Your task to perform on an android device: choose inbox layout in the gmail app Image 0: 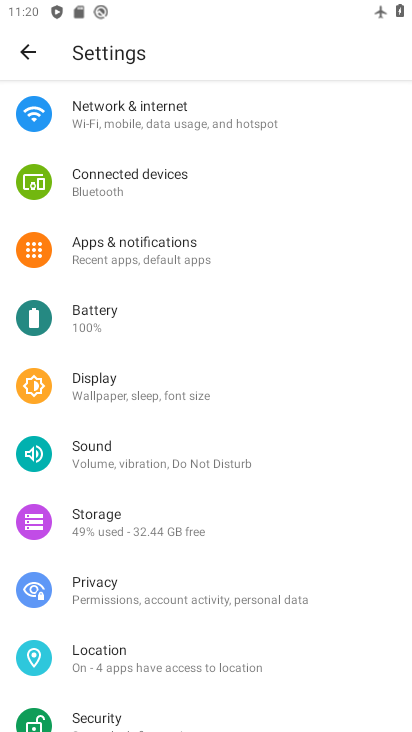
Step 0: press home button
Your task to perform on an android device: choose inbox layout in the gmail app Image 1: 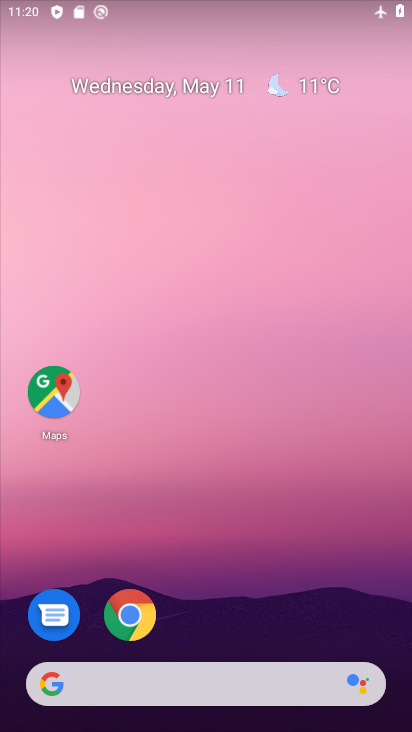
Step 1: drag from (301, 593) to (337, 105)
Your task to perform on an android device: choose inbox layout in the gmail app Image 2: 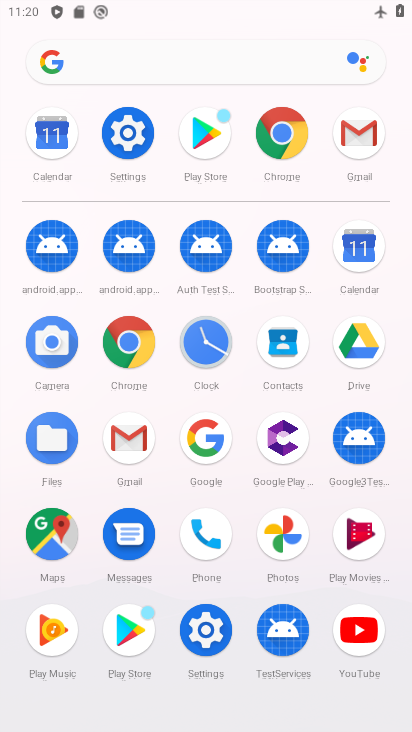
Step 2: click (363, 136)
Your task to perform on an android device: choose inbox layout in the gmail app Image 3: 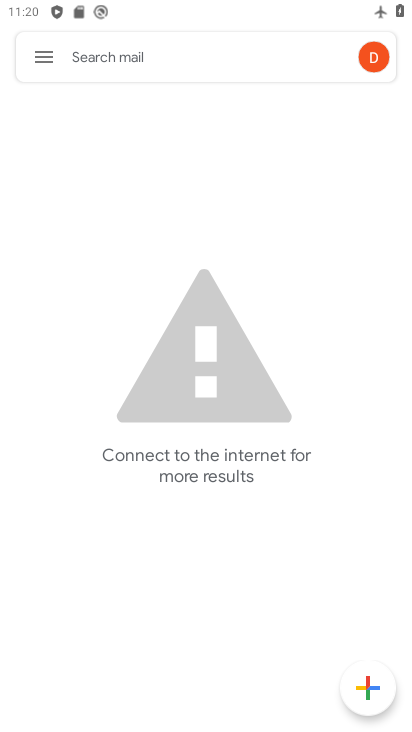
Step 3: click (44, 47)
Your task to perform on an android device: choose inbox layout in the gmail app Image 4: 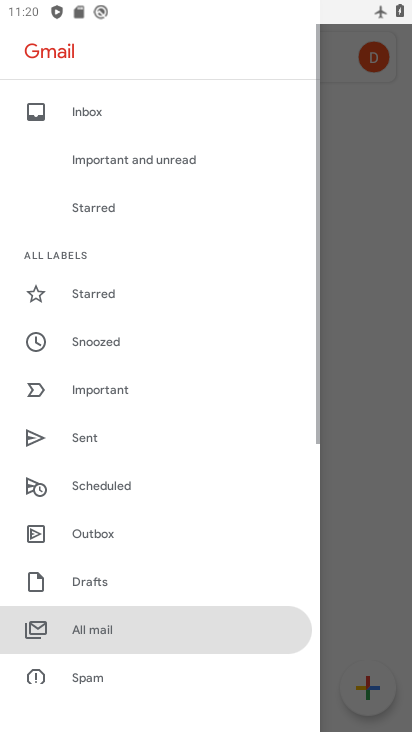
Step 4: drag from (120, 618) to (228, 183)
Your task to perform on an android device: choose inbox layout in the gmail app Image 5: 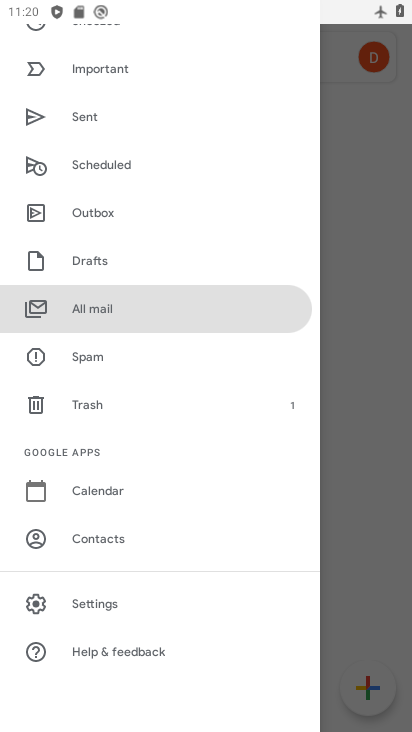
Step 5: click (100, 619)
Your task to perform on an android device: choose inbox layout in the gmail app Image 6: 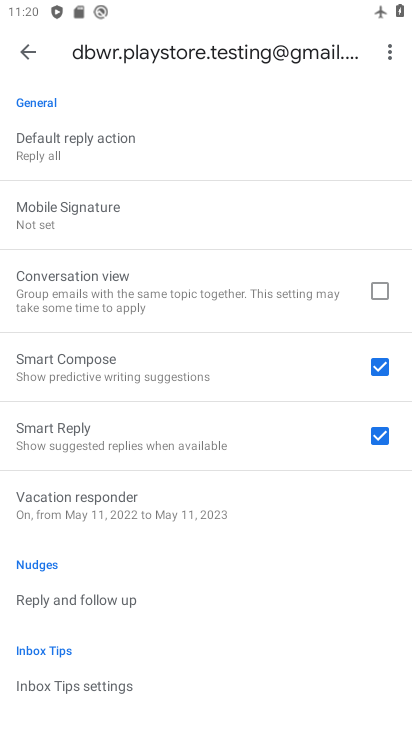
Step 6: drag from (209, 190) to (300, 538)
Your task to perform on an android device: choose inbox layout in the gmail app Image 7: 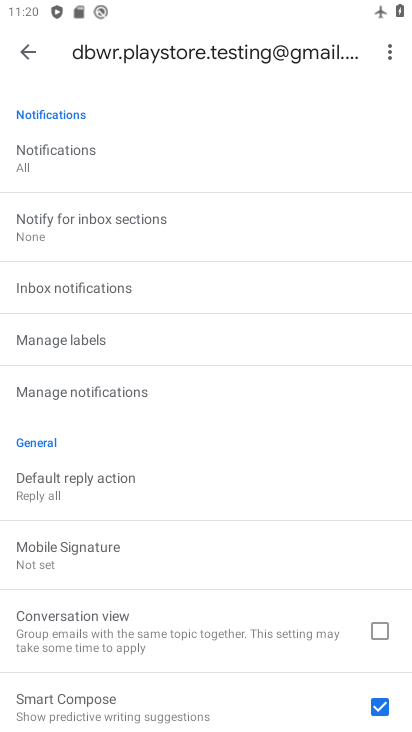
Step 7: drag from (207, 192) to (140, 469)
Your task to perform on an android device: choose inbox layout in the gmail app Image 8: 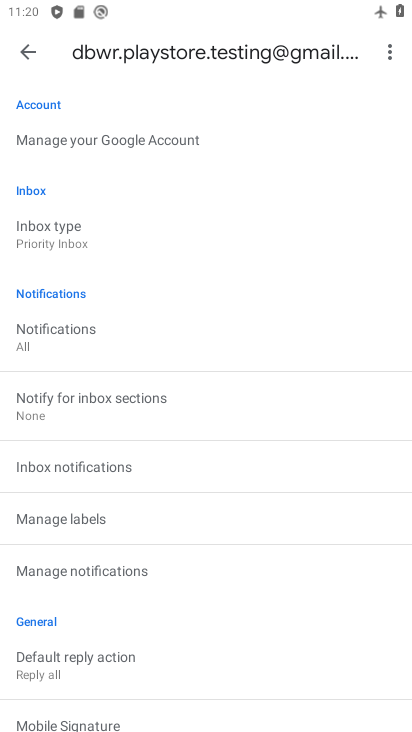
Step 8: click (82, 242)
Your task to perform on an android device: choose inbox layout in the gmail app Image 9: 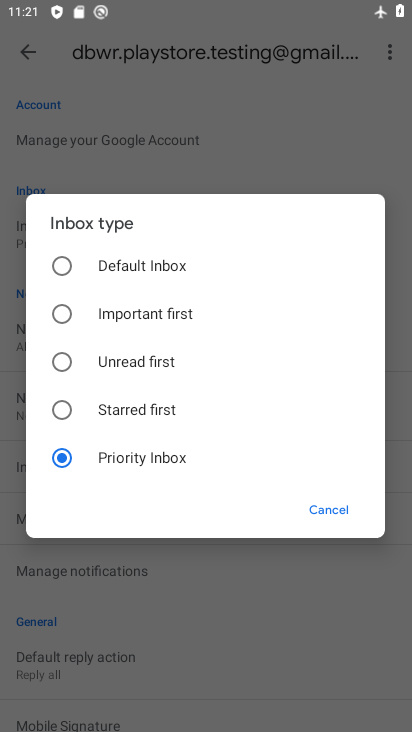
Step 9: task complete